Your task to perform on an android device: Open display settings Image 0: 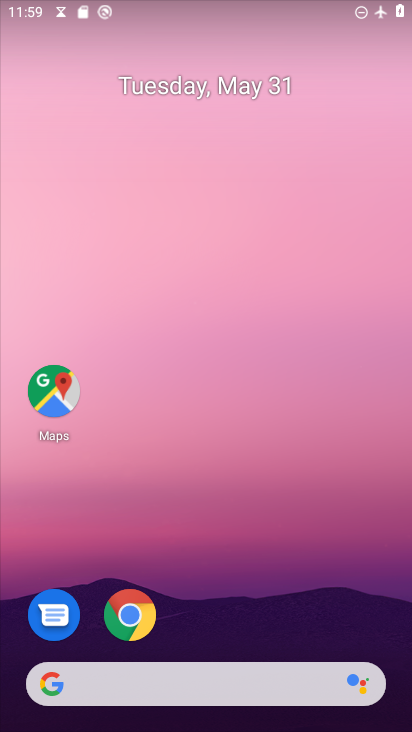
Step 0: drag from (269, 687) to (274, 10)
Your task to perform on an android device: Open display settings Image 1: 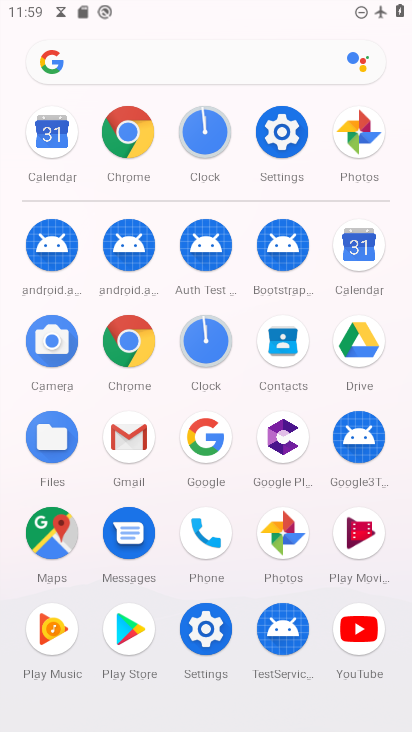
Step 1: click (265, 152)
Your task to perform on an android device: Open display settings Image 2: 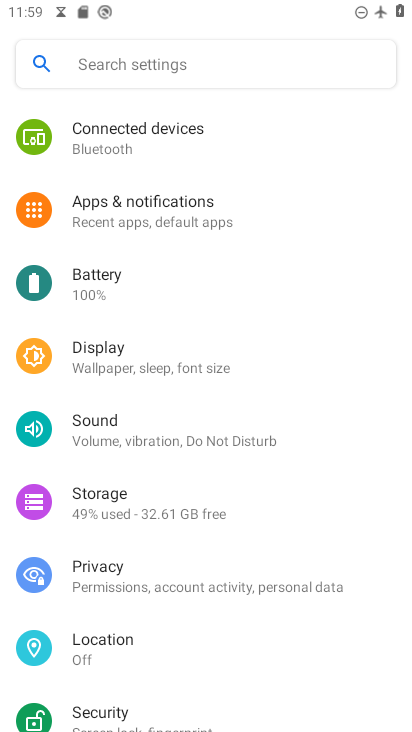
Step 2: click (116, 370)
Your task to perform on an android device: Open display settings Image 3: 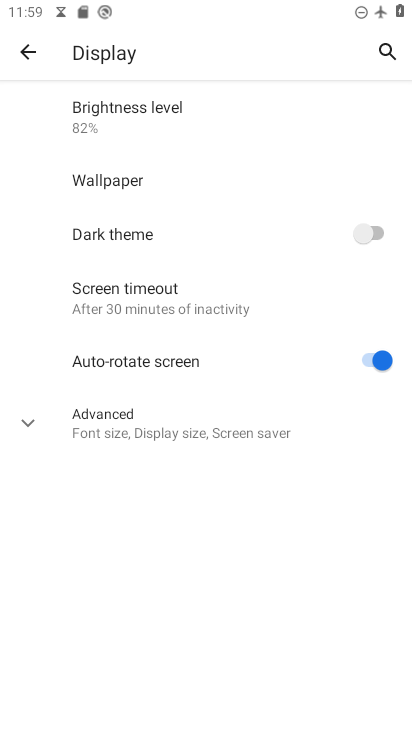
Step 3: task complete